Your task to perform on an android device: Open settings on Google Maps Image 0: 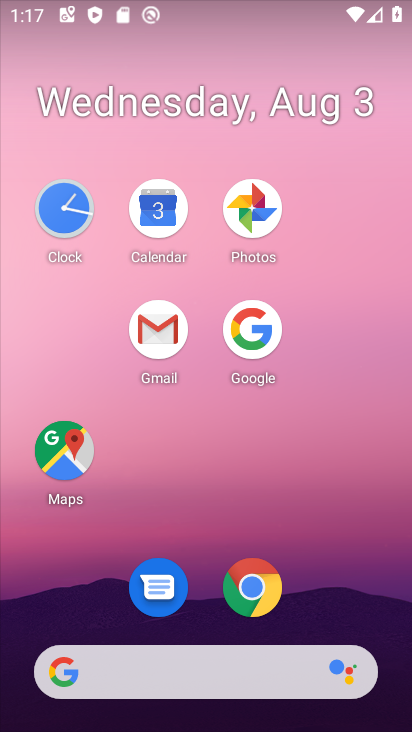
Step 0: click (44, 443)
Your task to perform on an android device: Open settings on Google Maps Image 1: 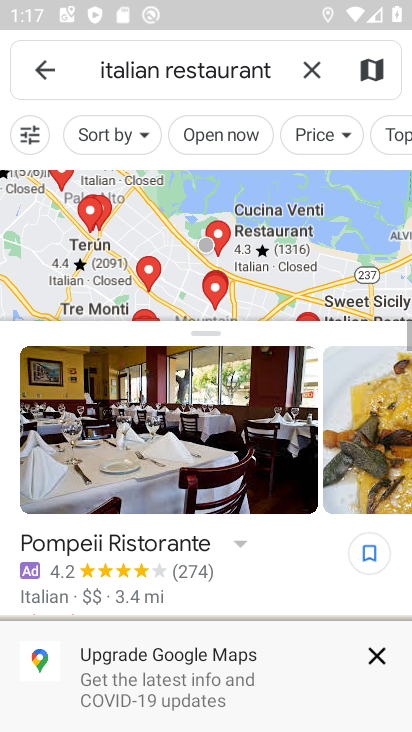
Step 1: click (42, 72)
Your task to perform on an android device: Open settings on Google Maps Image 2: 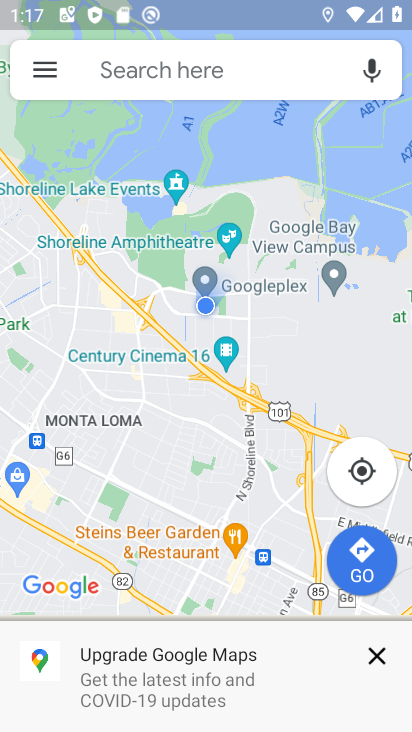
Step 2: click (42, 72)
Your task to perform on an android device: Open settings on Google Maps Image 3: 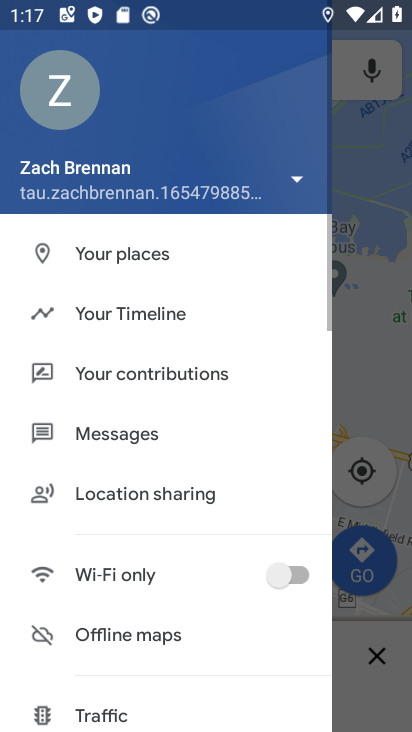
Step 3: drag from (247, 647) to (189, 330)
Your task to perform on an android device: Open settings on Google Maps Image 4: 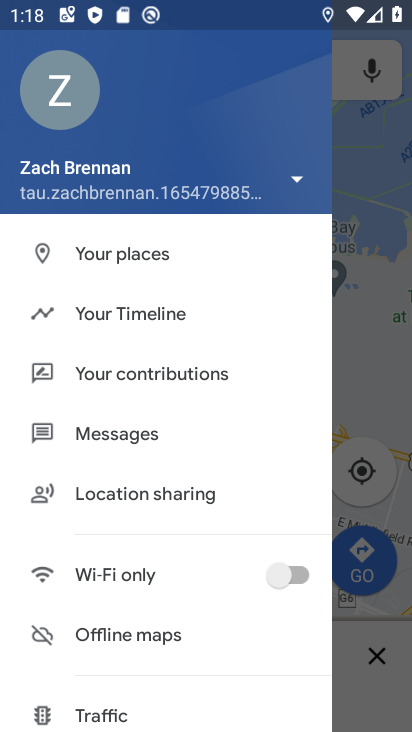
Step 4: drag from (133, 586) to (86, 252)
Your task to perform on an android device: Open settings on Google Maps Image 5: 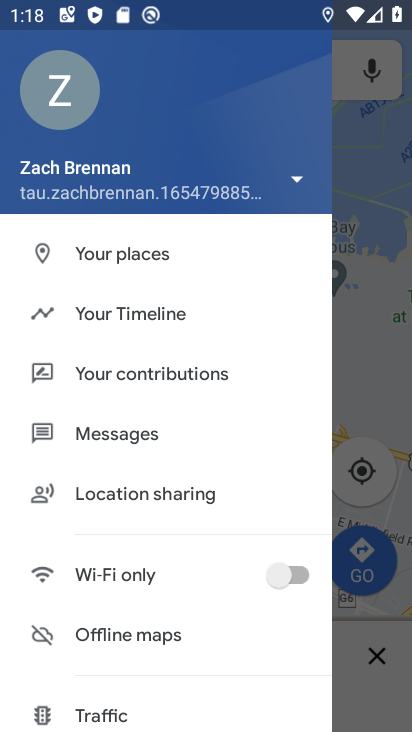
Step 5: drag from (110, 634) to (183, 320)
Your task to perform on an android device: Open settings on Google Maps Image 6: 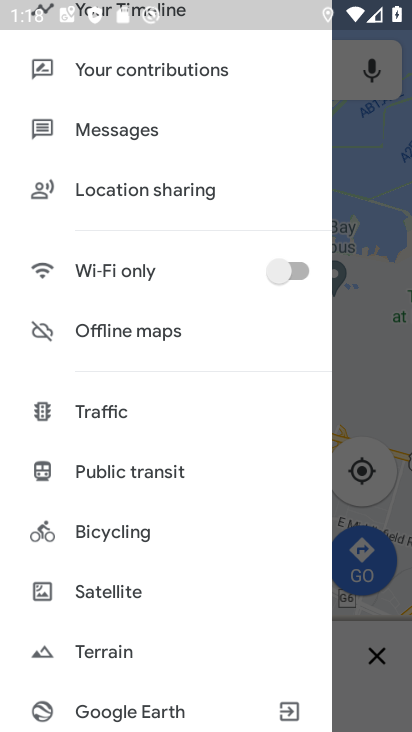
Step 6: drag from (125, 559) to (155, 289)
Your task to perform on an android device: Open settings on Google Maps Image 7: 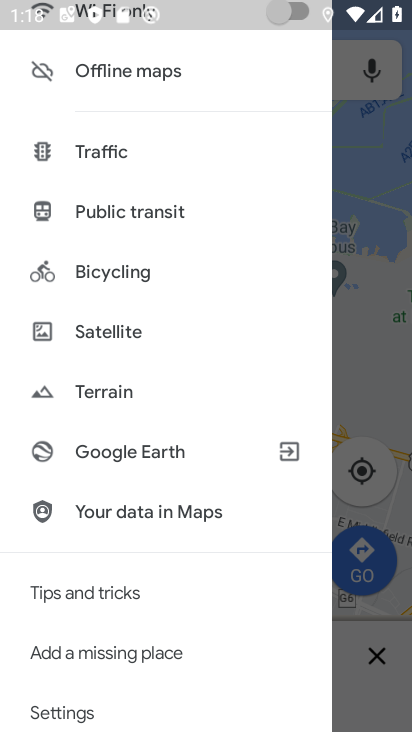
Step 7: drag from (129, 637) to (145, 282)
Your task to perform on an android device: Open settings on Google Maps Image 8: 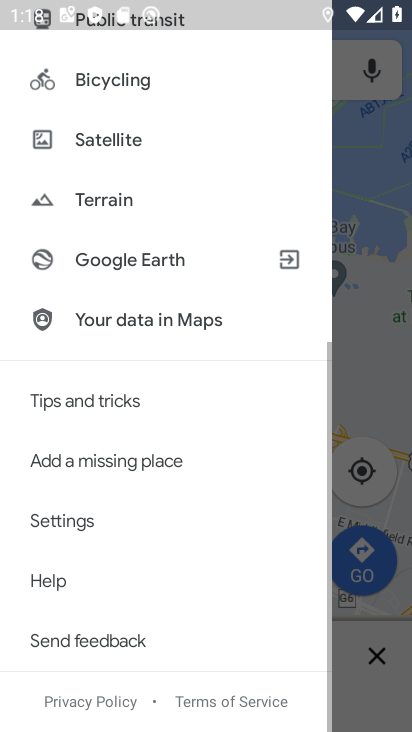
Step 8: click (82, 520)
Your task to perform on an android device: Open settings on Google Maps Image 9: 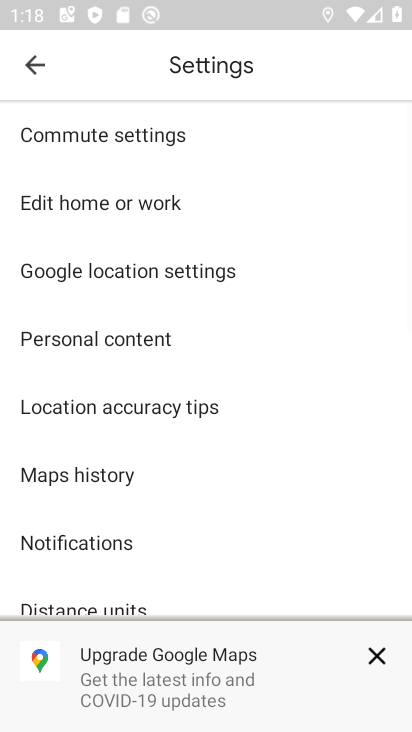
Step 9: task complete